Your task to perform on an android device: Open privacy settings Image 0: 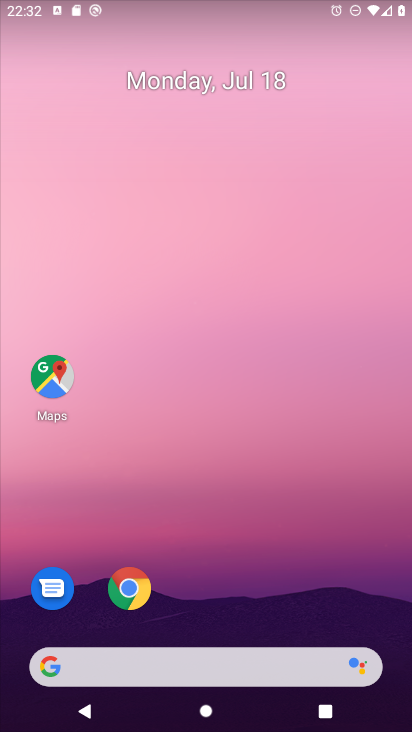
Step 0: drag from (339, 602) to (310, 107)
Your task to perform on an android device: Open privacy settings Image 1: 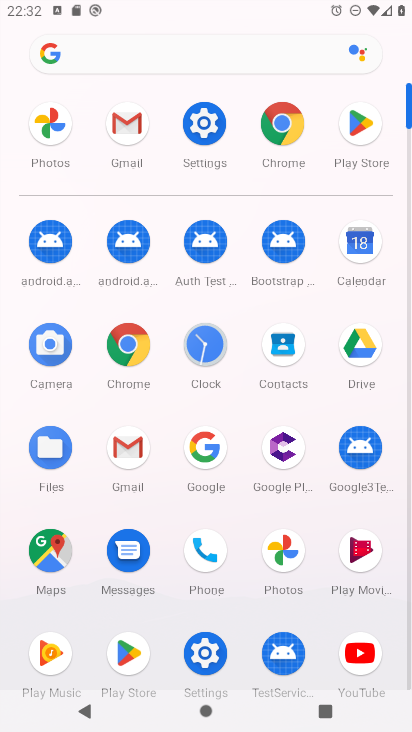
Step 1: click (205, 655)
Your task to perform on an android device: Open privacy settings Image 2: 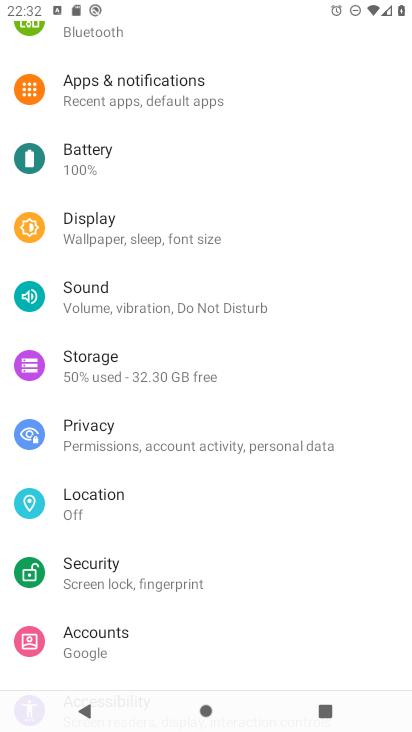
Step 2: click (106, 424)
Your task to perform on an android device: Open privacy settings Image 3: 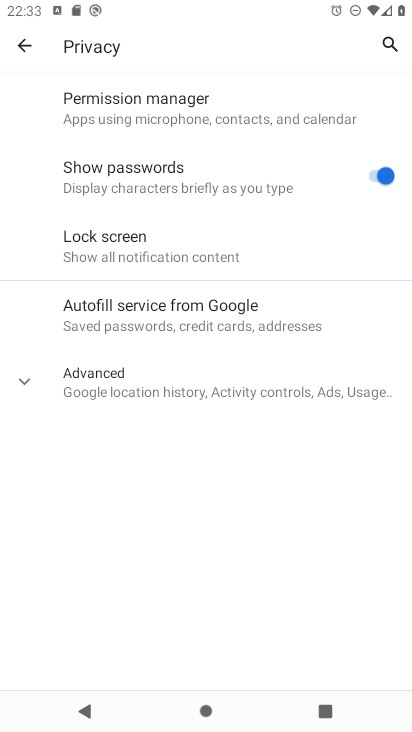
Step 3: click (27, 370)
Your task to perform on an android device: Open privacy settings Image 4: 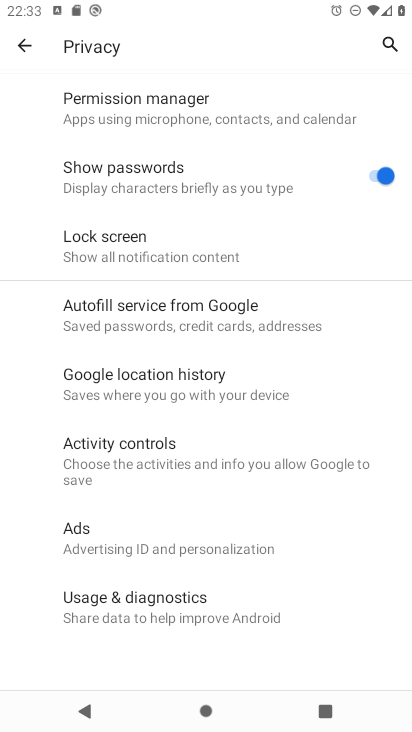
Step 4: task complete